Your task to perform on an android device: open wifi settings Image 0: 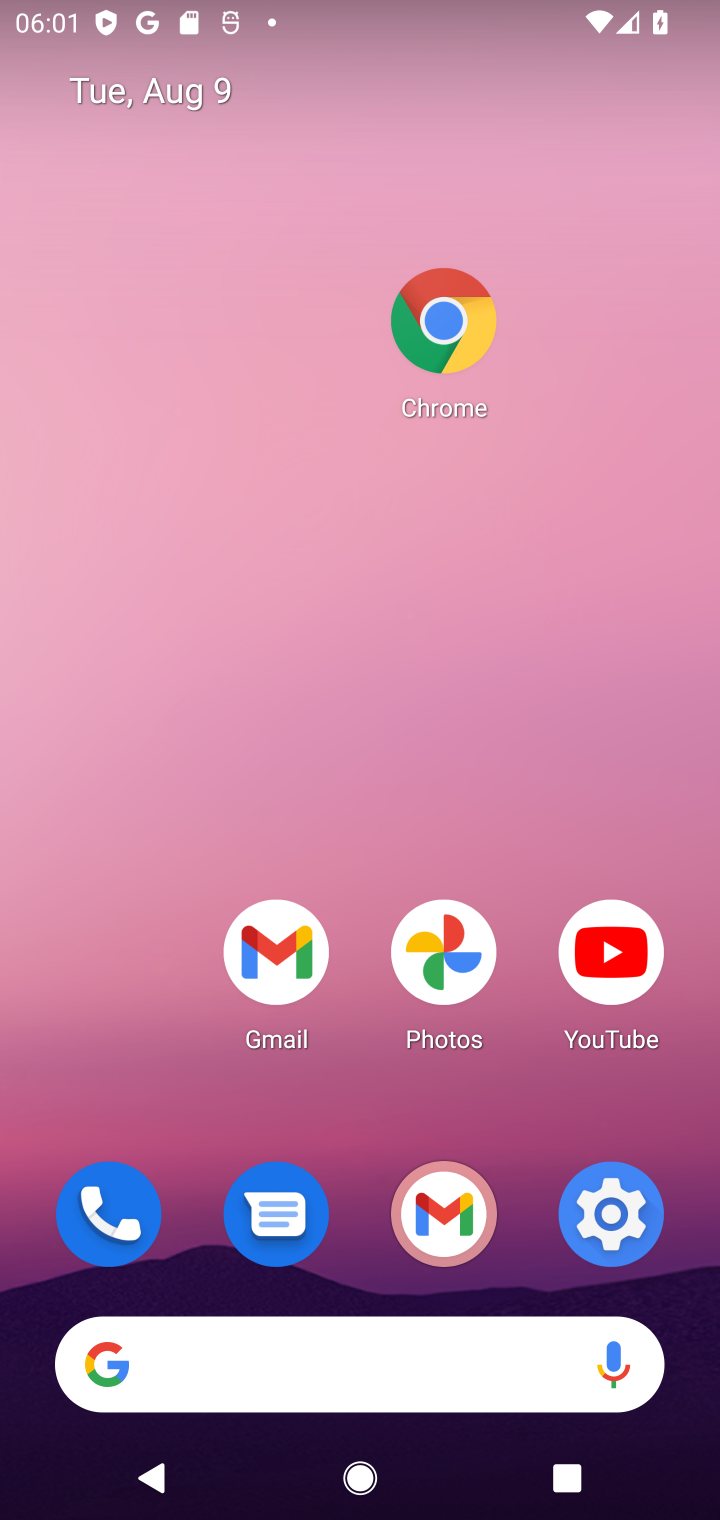
Step 0: click (601, 1229)
Your task to perform on an android device: open wifi settings Image 1: 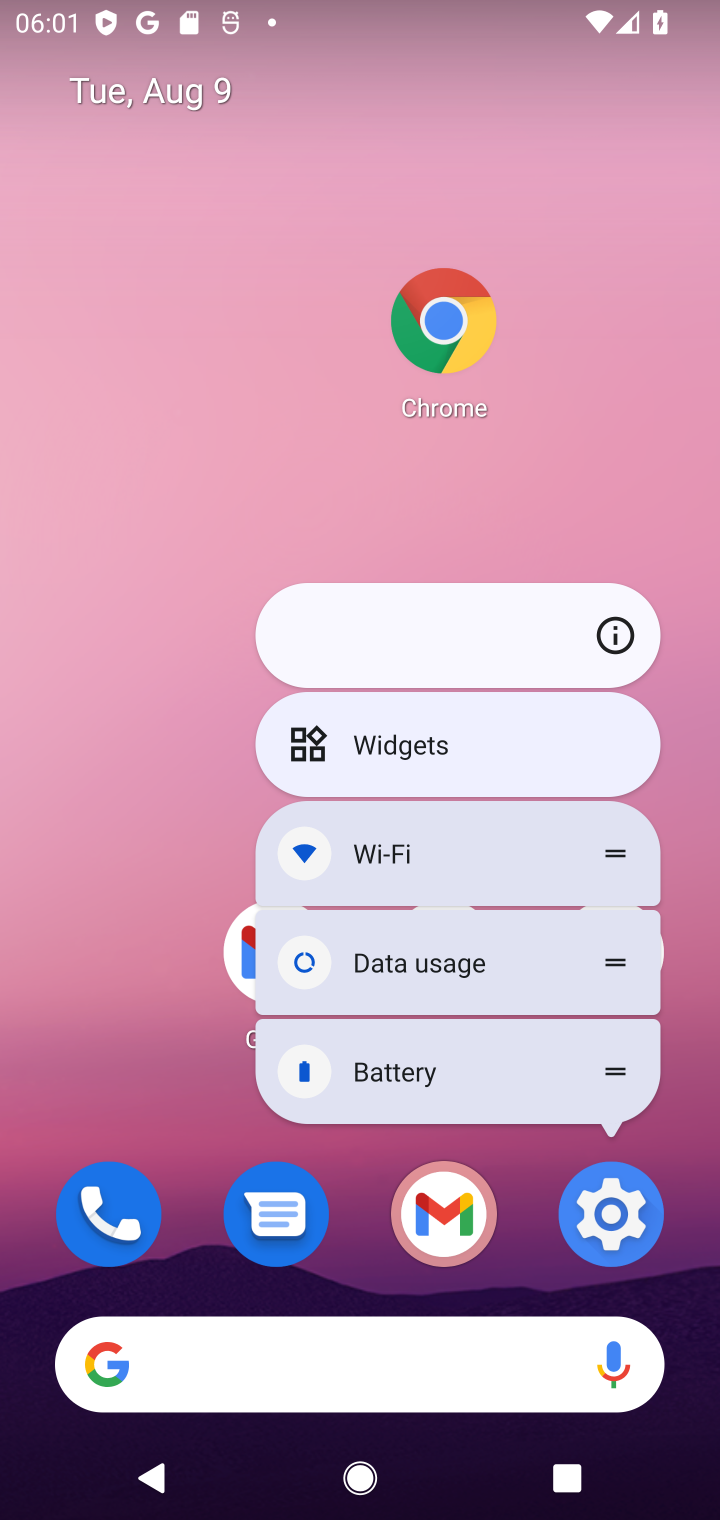
Step 1: click (586, 1229)
Your task to perform on an android device: open wifi settings Image 2: 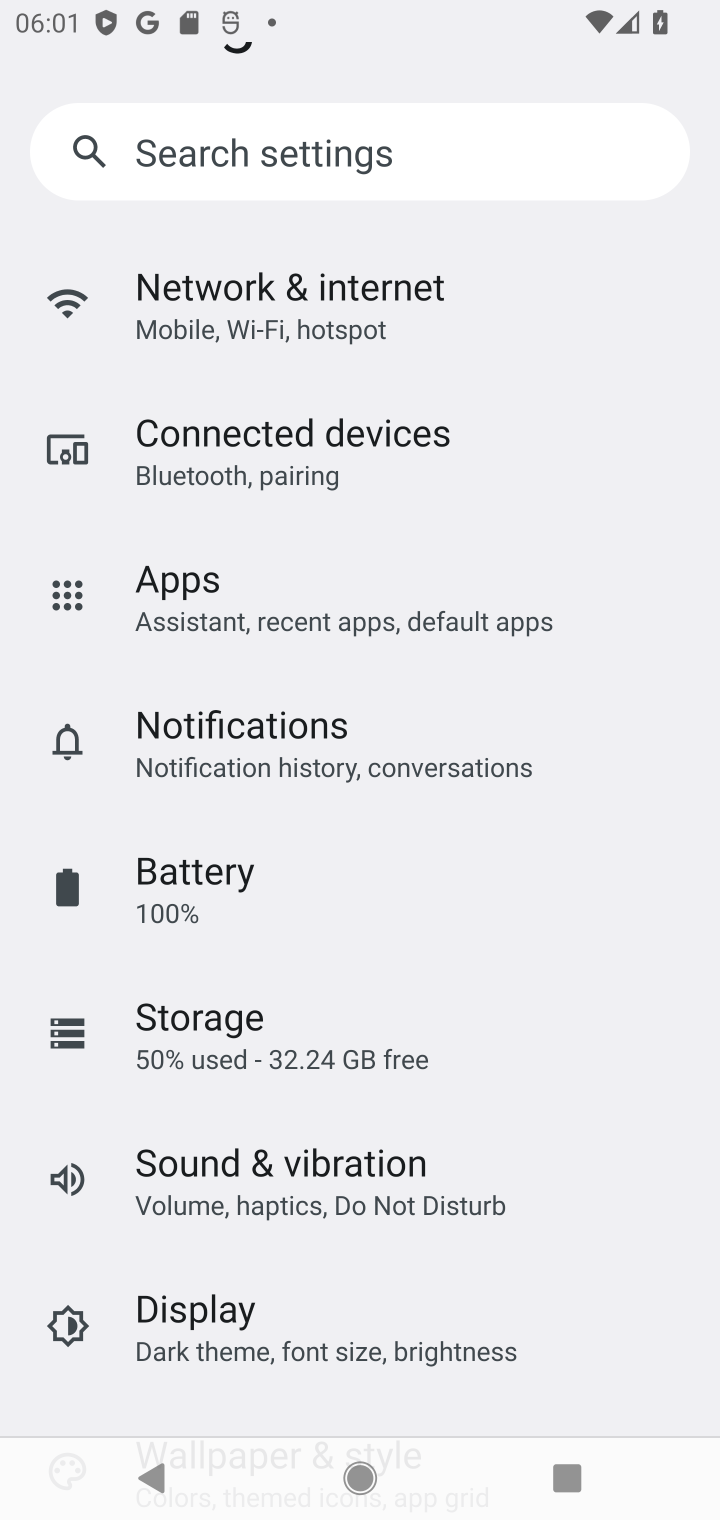
Step 2: click (267, 330)
Your task to perform on an android device: open wifi settings Image 3: 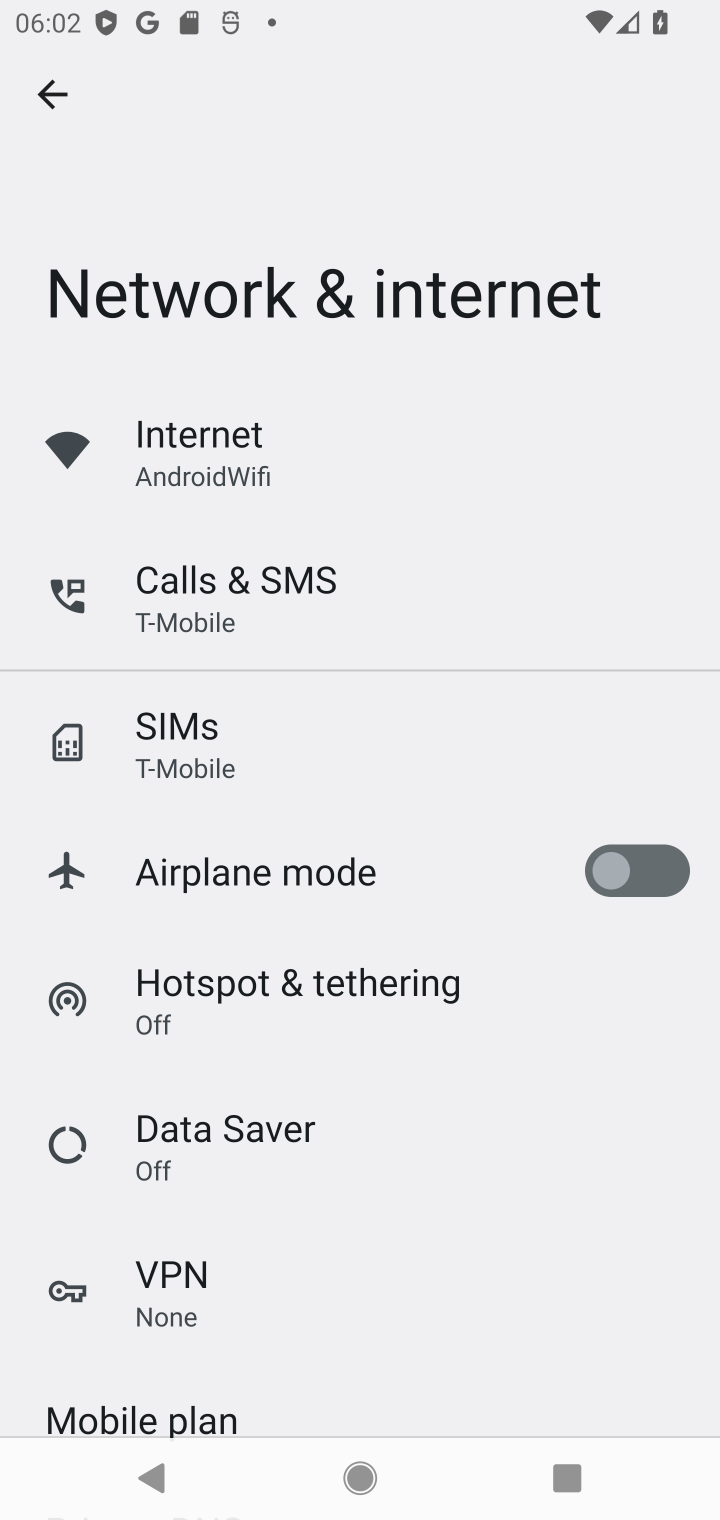
Step 3: click (348, 471)
Your task to perform on an android device: open wifi settings Image 4: 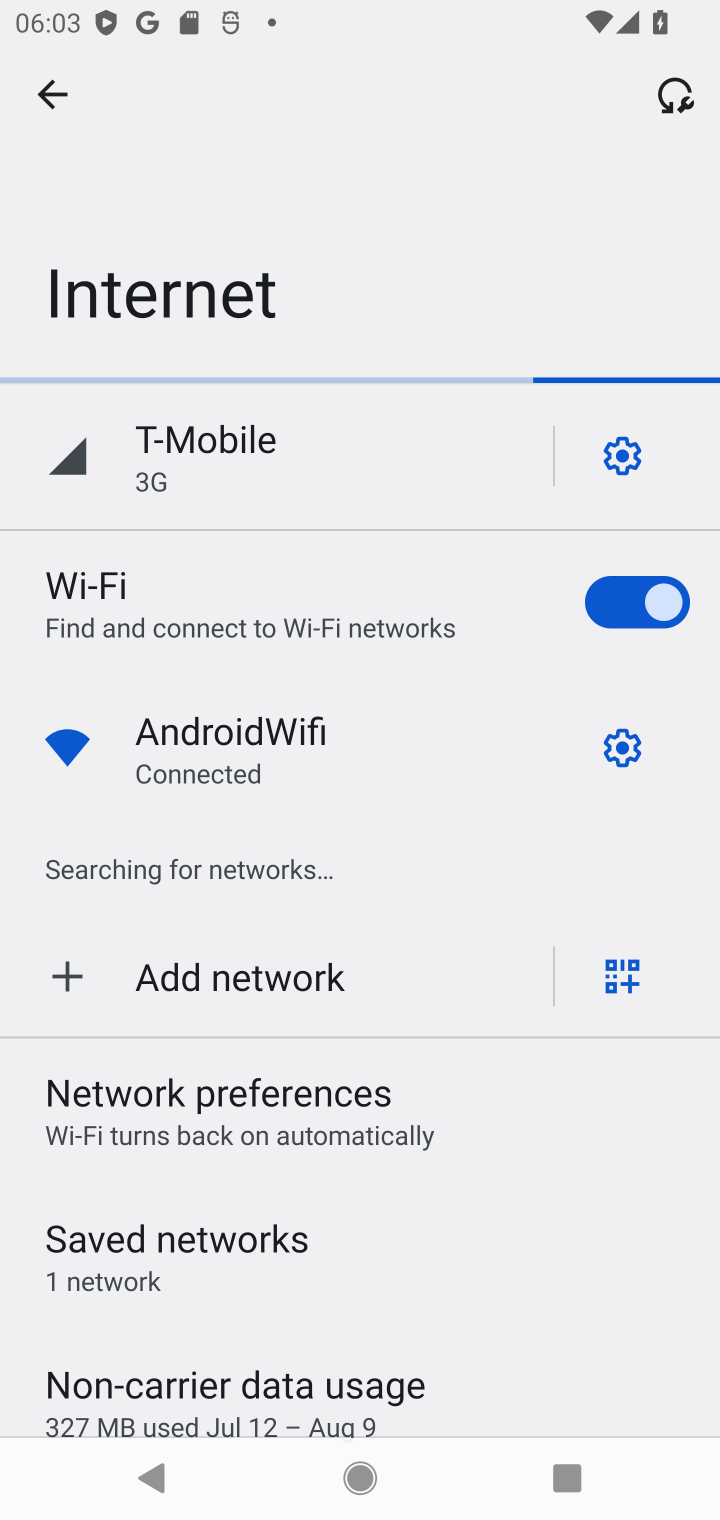
Step 4: task complete